Your task to perform on an android device: Go to location settings Image 0: 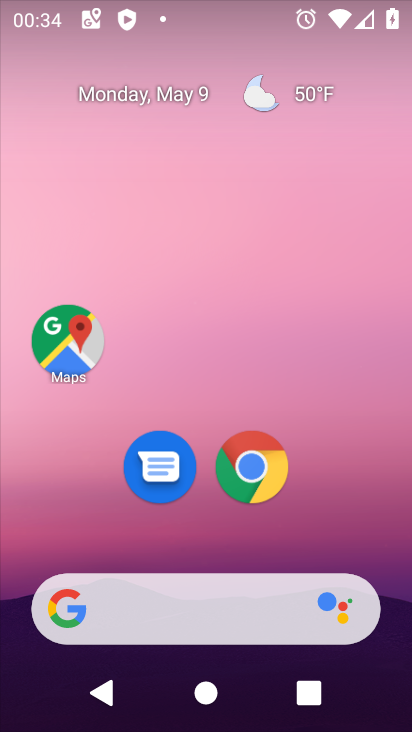
Step 0: drag from (205, 532) to (231, 129)
Your task to perform on an android device: Go to location settings Image 1: 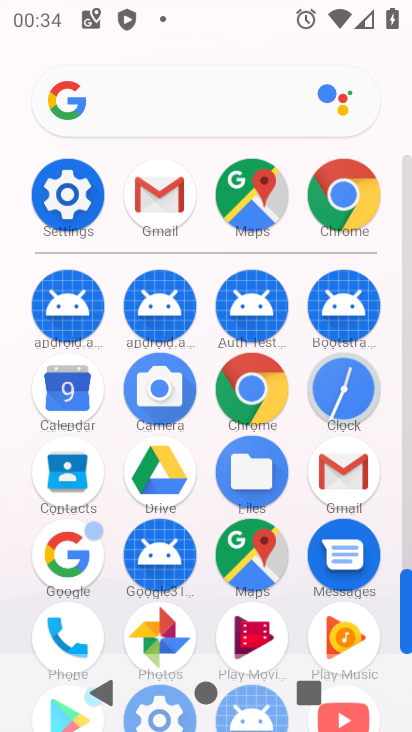
Step 1: click (64, 190)
Your task to perform on an android device: Go to location settings Image 2: 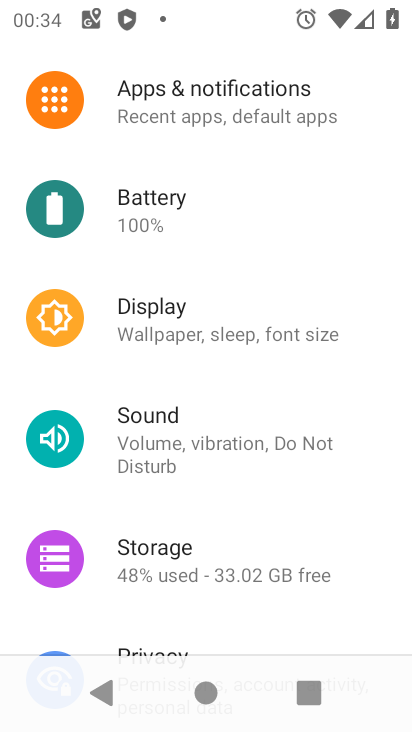
Step 2: drag from (207, 591) to (251, 185)
Your task to perform on an android device: Go to location settings Image 3: 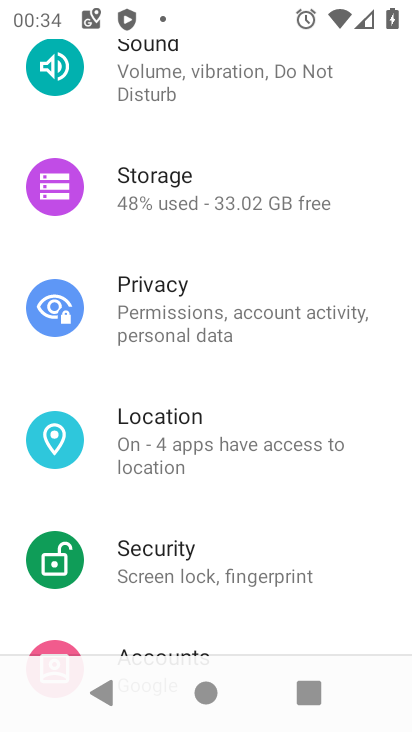
Step 3: click (217, 426)
Your task to perform on an android device: Go to location settings Image 4: 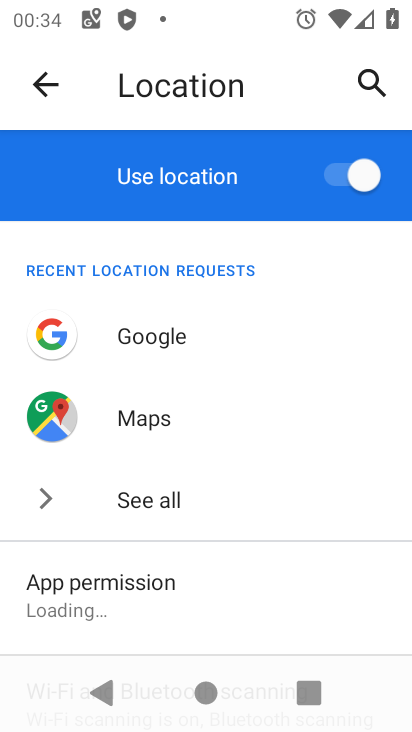
Step 4: drag from (199, 608) to (195, 210)
Your task to perform on an android device: Go to location settings Image 5: 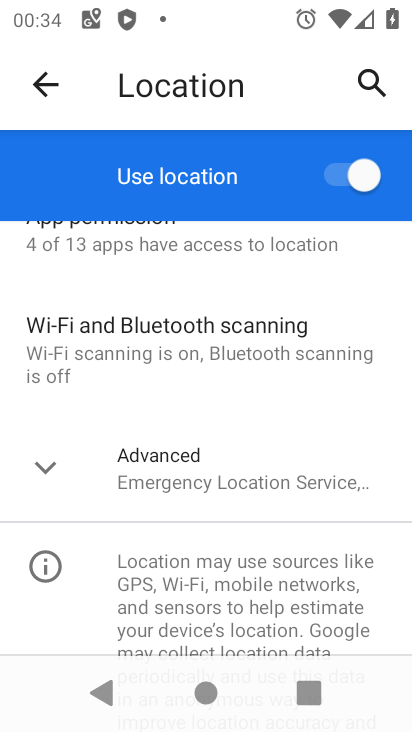
Step 5: click (48, 461)
Your task to perform on an android device: Go to location settings Image 6: 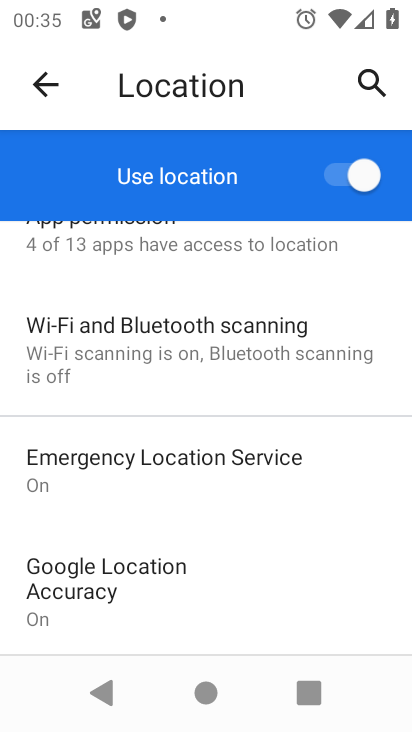
Step 6: task complete